Your task to perform on an android device: all mails in gmail Image 0: 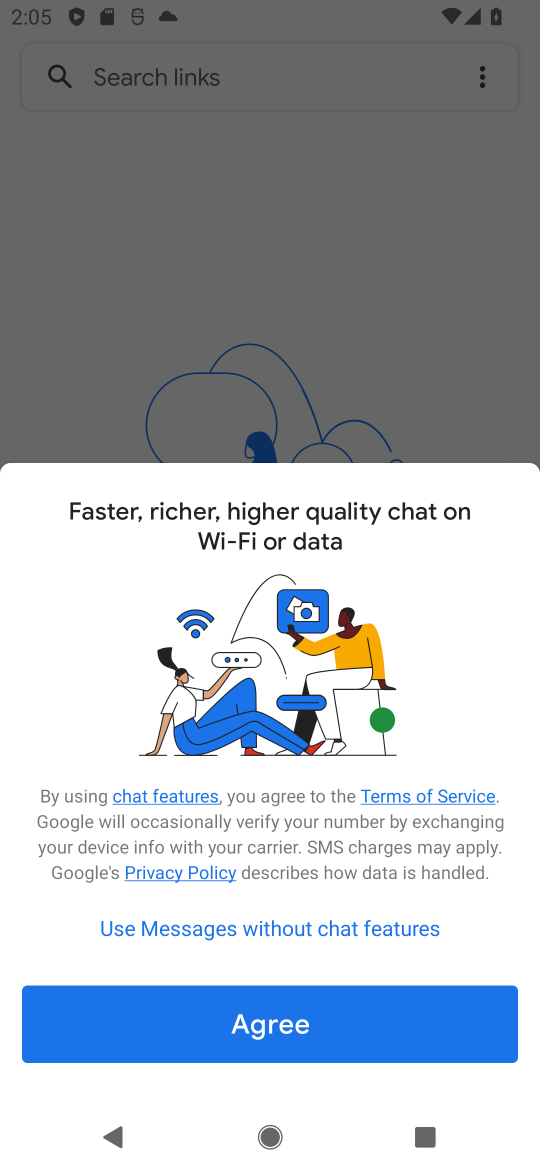
Step 0: press home button
Your task to perform on an android device: all mails in gmail Image 1: 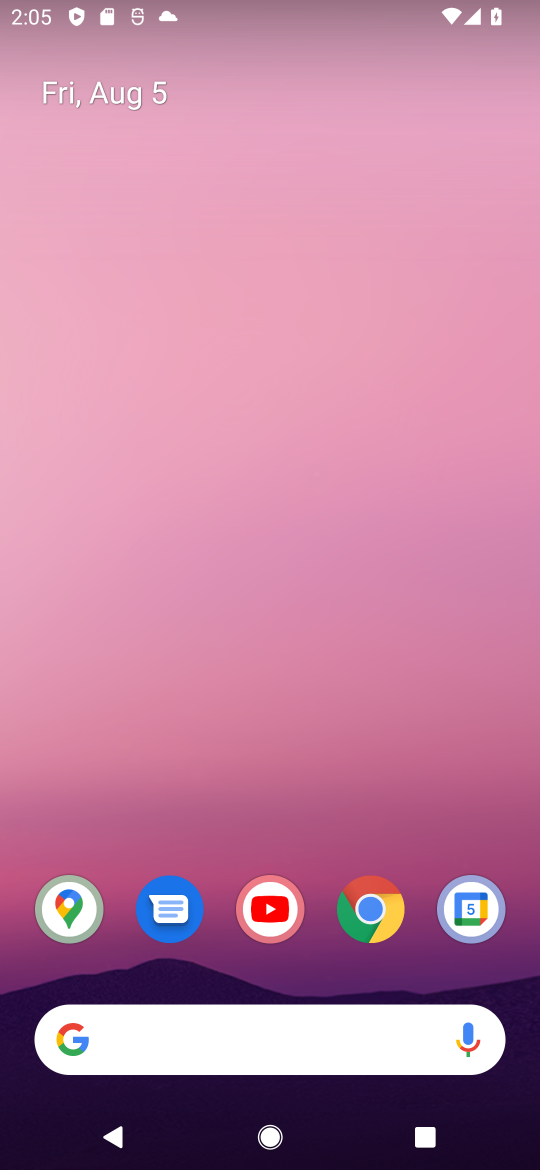
Step 1: drag from (269, 1004) to (268, 299)
Your task to perform on an android device: all mails in gmail Image 2: 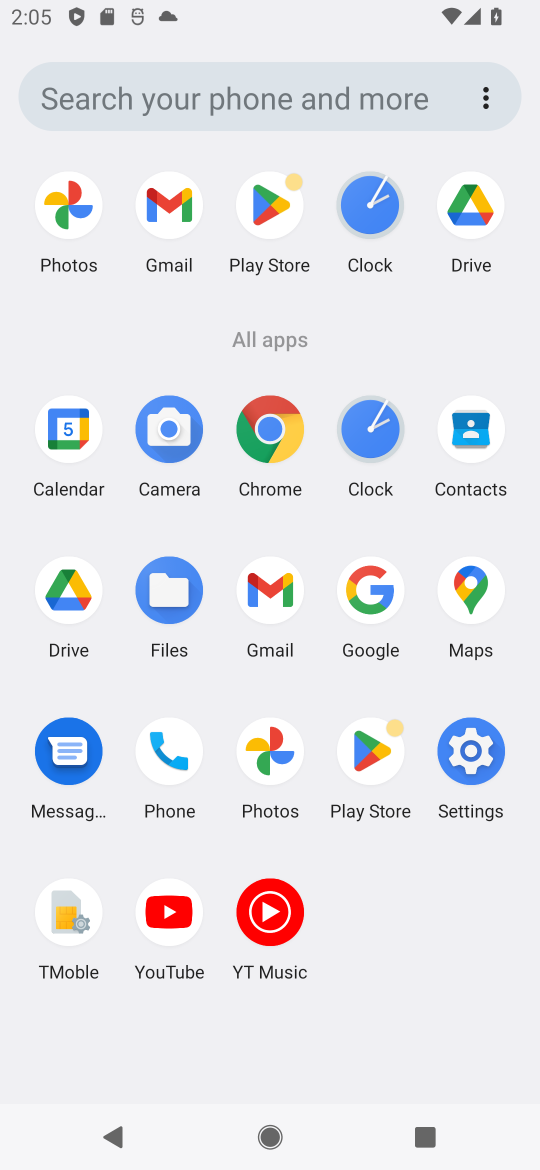
Step 2: click (151, 205)
Your task to perform on an android device: all mails in gmail Image 3: 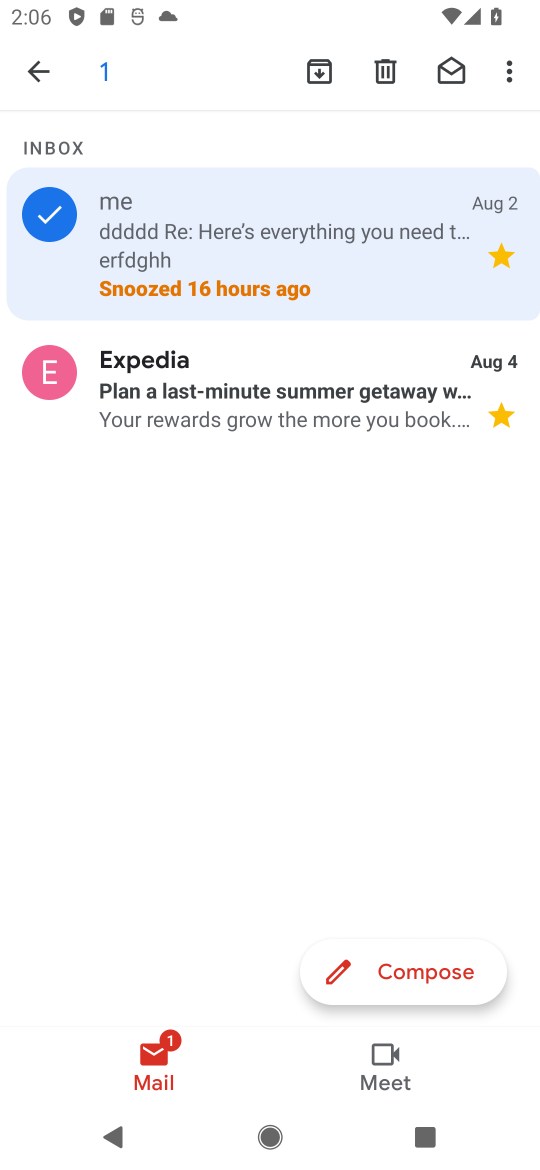
Step 3: click (31, 84)
Your task to perform on an android device: all mails in gmail Image 4: 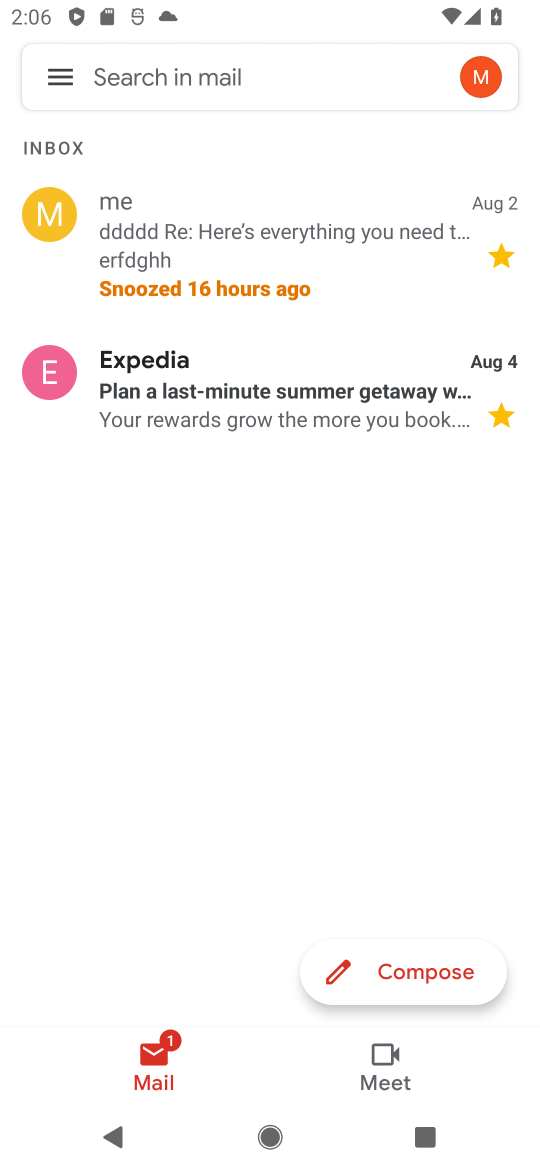
Step 4: click (43, 84)
Your task to perform on an android device: all mails in gmail Image 5: 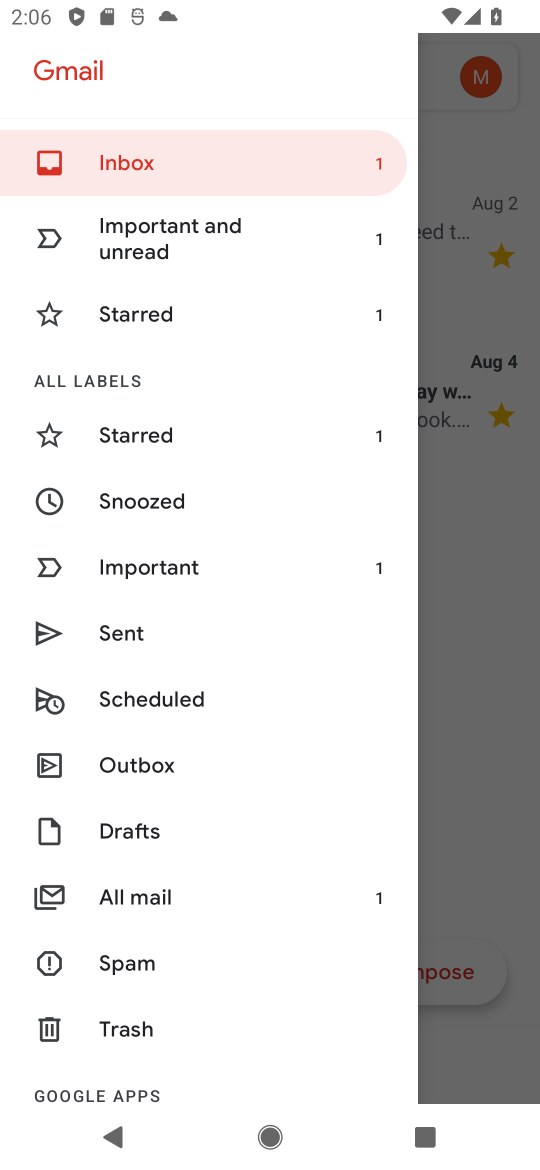
Step 5: click (155, 898)
Your task to perform on an android device: all mails in gmail Image 6: 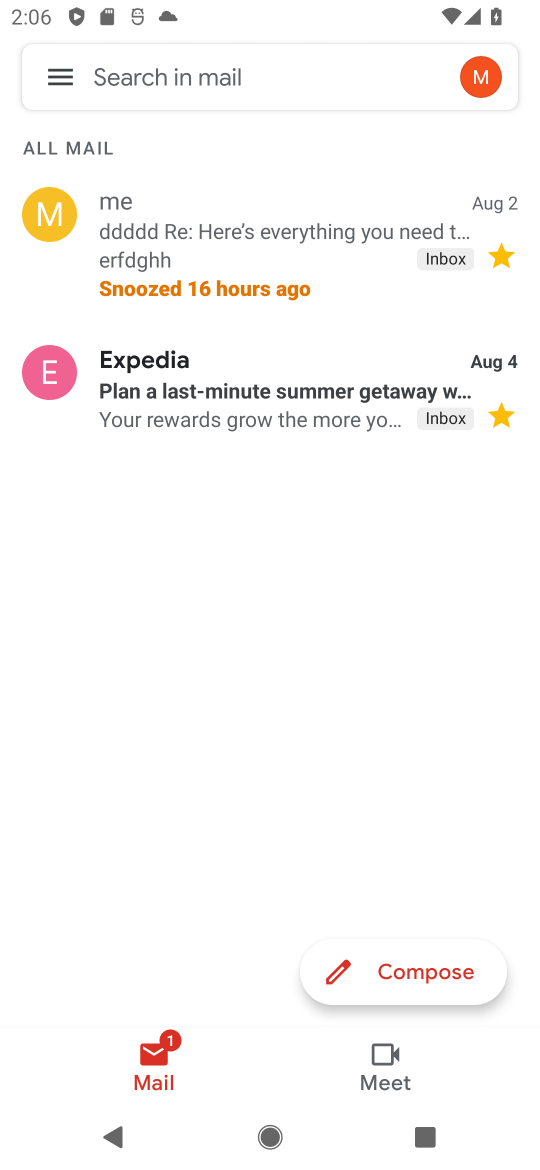
Step 6: task complete